Your task to perform on an android device: search for starred emails in the gmail app Image 0: 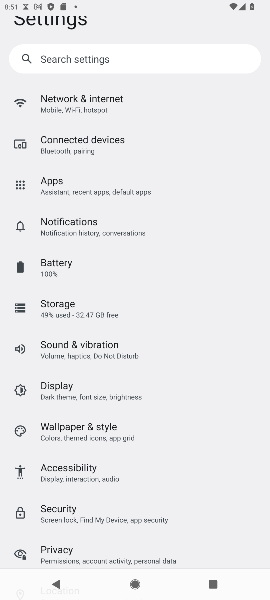
Step 0: press home button
Your task to perform on an android device: search for starred emails in the gmail app Image 1: 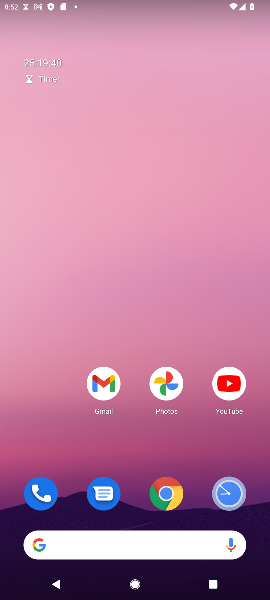
Step 1: drag from (47, 480) to (117, 128)
Your task to perform on an android device: search for starred emails in the gmail app Image 2: 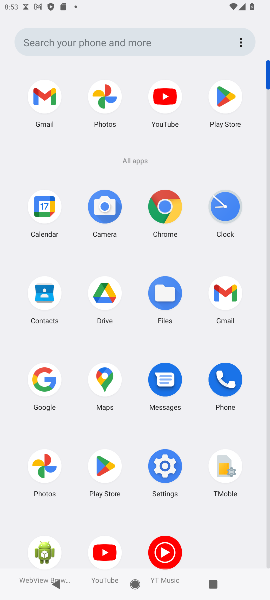
Step 2: click (225, 293)
Your task to perform on an android device: search for starred emails in the gmail app Image 3: 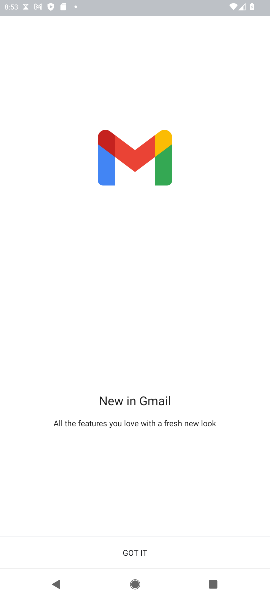
Step 3: click (136, 540)
Your task to perform on an android device: search for starred emails in the gmail app Image 4: 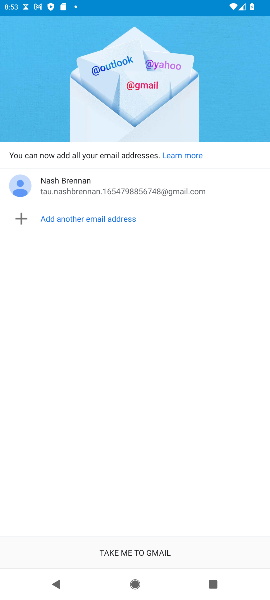
Step 4: click (145, 537)
Your task to perform on an android device: search for starred emails in the gmail app Image 5: 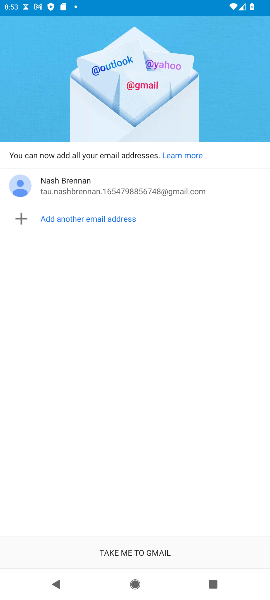
Step 5: click (140, 551)
Your task to perform on an android device: search for starred emails in the gmail app Image 6: 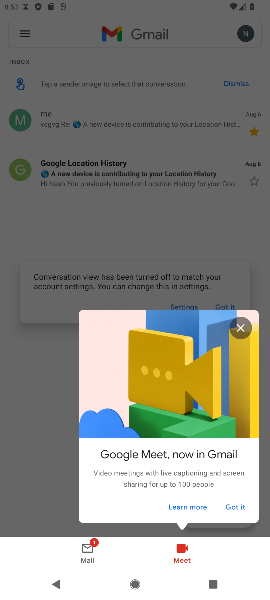
Step 6: click (245, 323)
Your task to perform on an android device: search for starred emails in the gmail app Image 7: 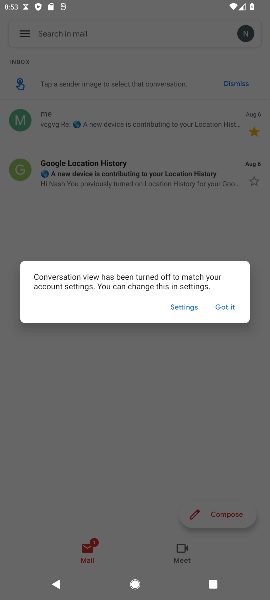
Step 7: click (27, 42)
Your task to perform on an android device: search for starred emails in the gmail app Image 8: 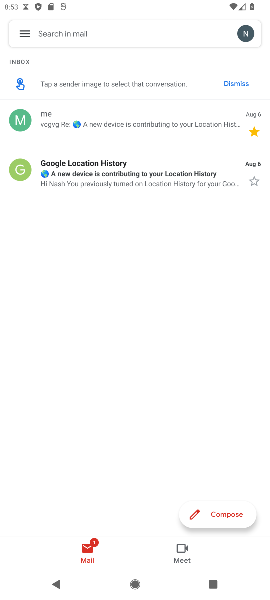
Step 8: click (27, 43)
Your task to perform on an android device: search for starred emails in the gmail app Image 9: 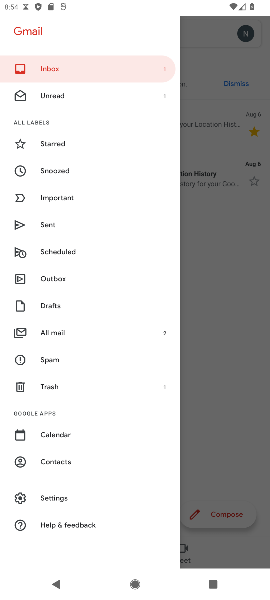
Step 9: click (61, 140)
Your task to perform on an android device: search for starred emails in the gmail app Image 10: 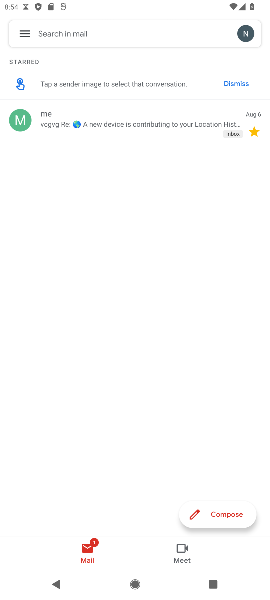
Step 10: task complete